Your task to perform on an android device: turn off improve location accuracy Image 0: 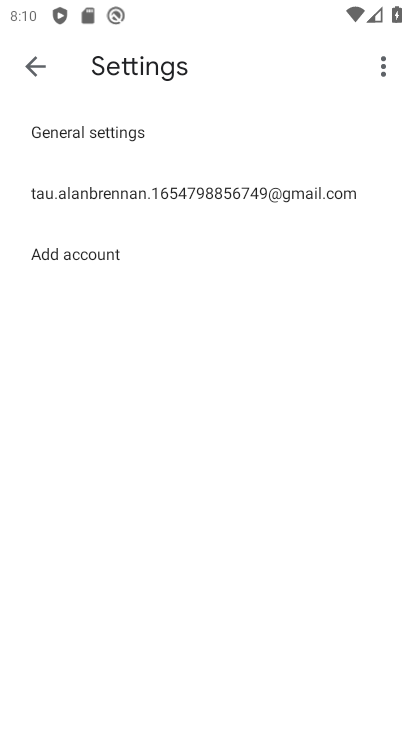
Step 0: press home button
Your task to perform on an android device: turn off improve location accuracy Image 1: 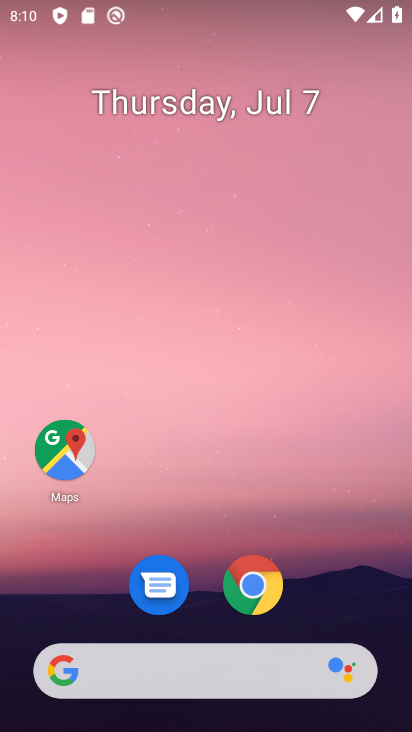
Step 1: drag from (297, 596) to (340, 38)
Your task to perform on an android device: turn off improve location accuracy Image 2: 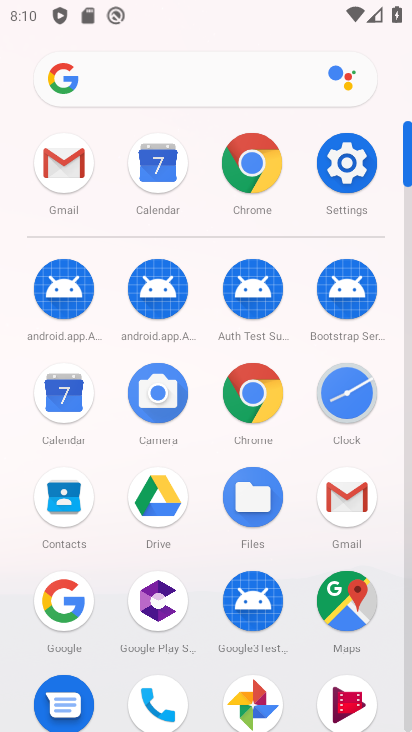
Step 2: click (354, 162)
Your task to perform on an android device: turn off improve location accuracy Image 3: 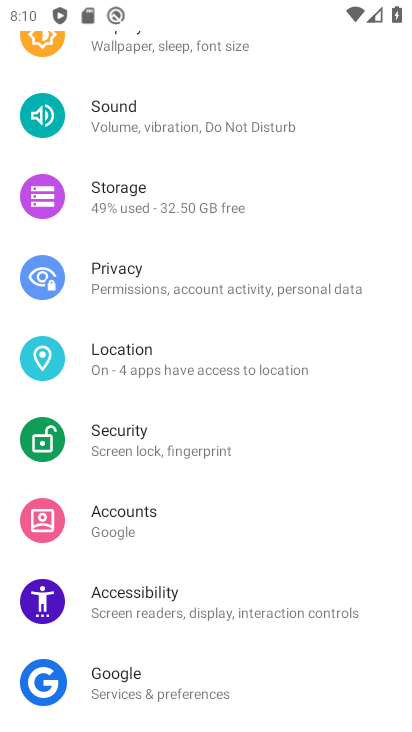
Step 3: click (213, 357)
Your task to perform on an android device: turn off improve location accuracy Image 4: 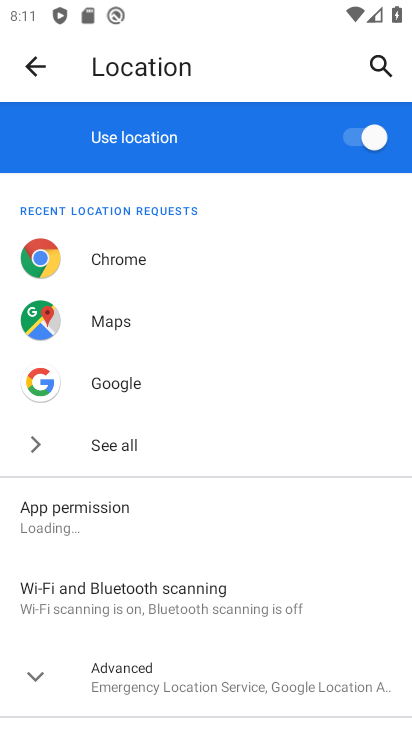
Step 4: click (36, 674)
Your task to perform on an android device: turn off improve location accuracy Image 5: 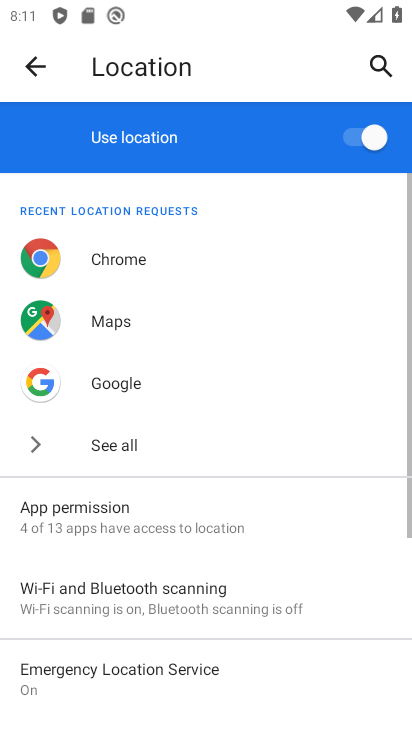
Step 5: drag from (259, 525) to (274, 193)
Your task to perform on an android device: turn off improve location accuracy Image 6: 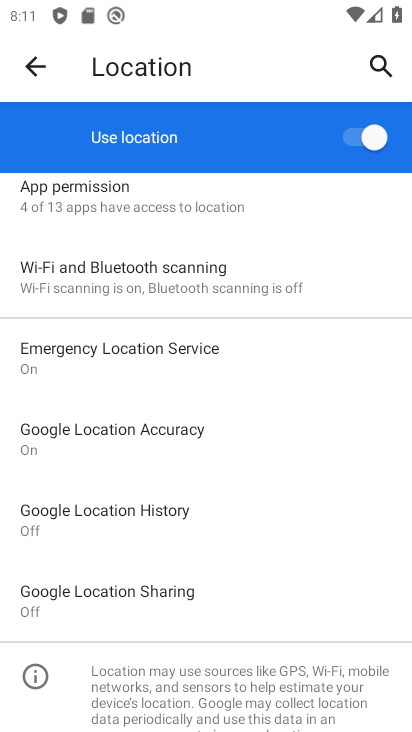
Step 6: click (143, 444)
Your task to perform on an android device: turn off improve location accuracy Image 7: 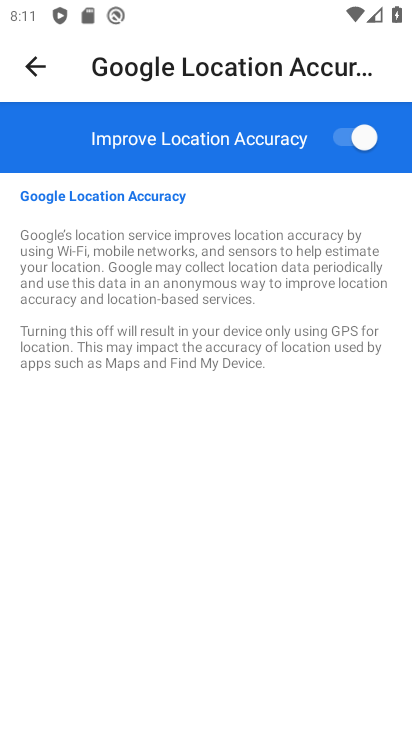
Step 7: click (351, 140)
Your task to perform on an android device: turn off improve location accuracy Image 8: 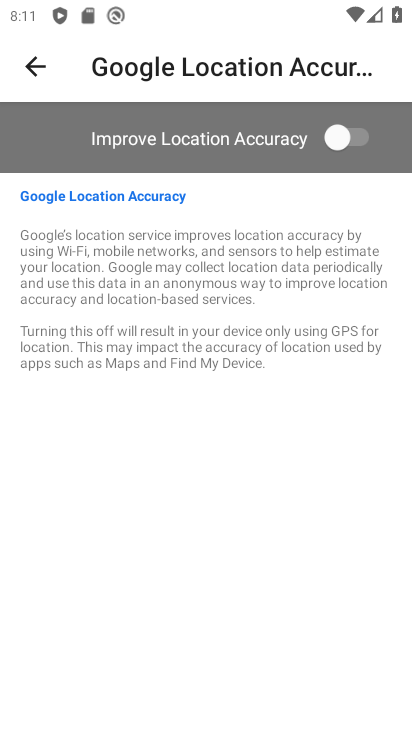
Step 8: task complete